Your task to perform on an android device: open sync settings in chrome Image 0: 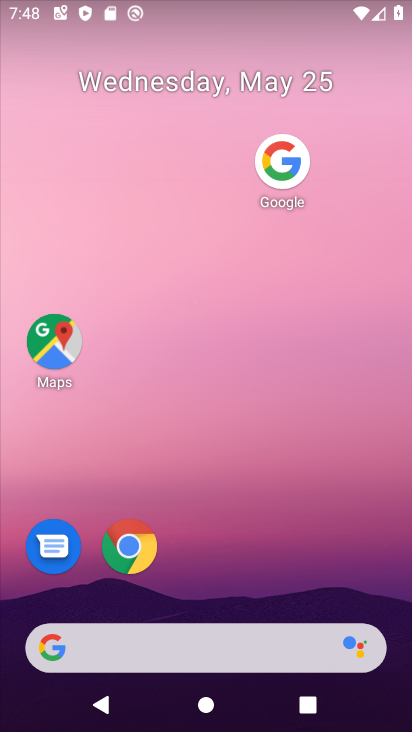
Step 0: click (136, 559)
Your task to perform on an android device: open sync settings in chrome Image 1: 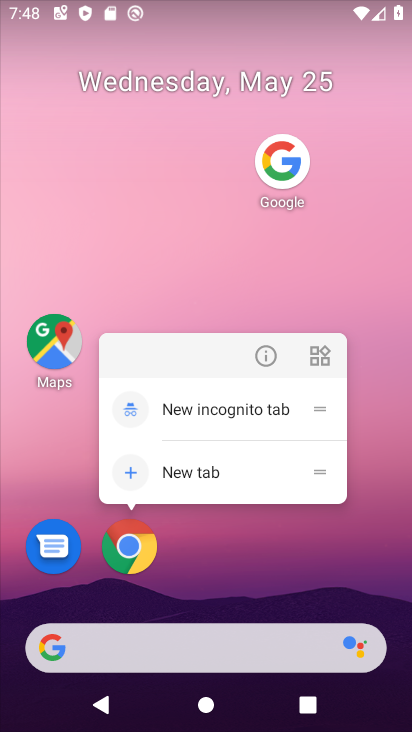
Step 1: click (128, 556)
Your task to perform on an android device: open sync settings in chrome Image 2: 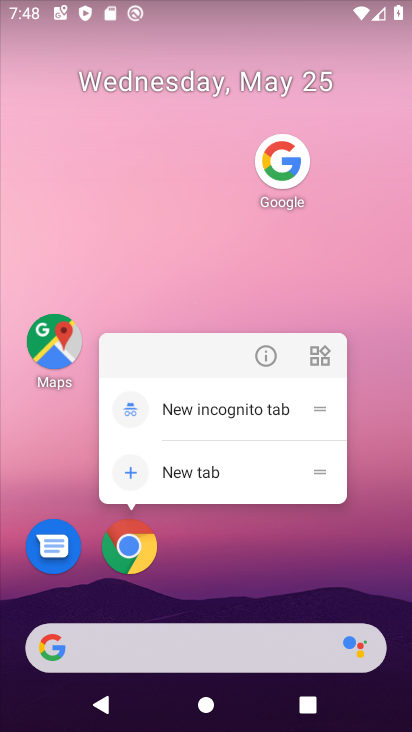
Step 2: click (141, 541)
Your task to perform on an android device: open sync settings in chrome Image 3: 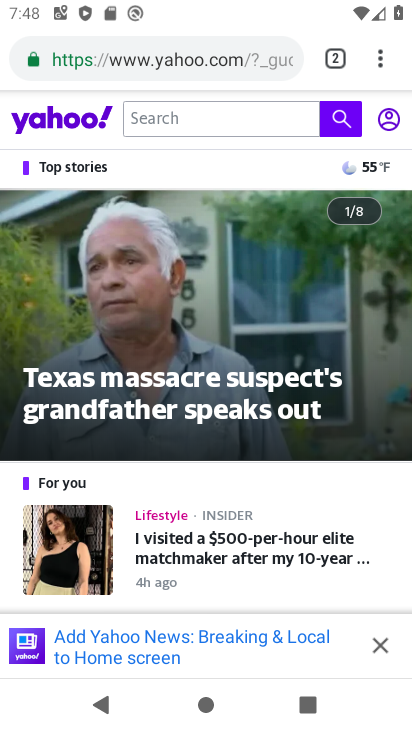
Step 3: drag from (375, 65) to (225, 570)
Your task to perform on an android device: open sync settings in chrome Image 4: 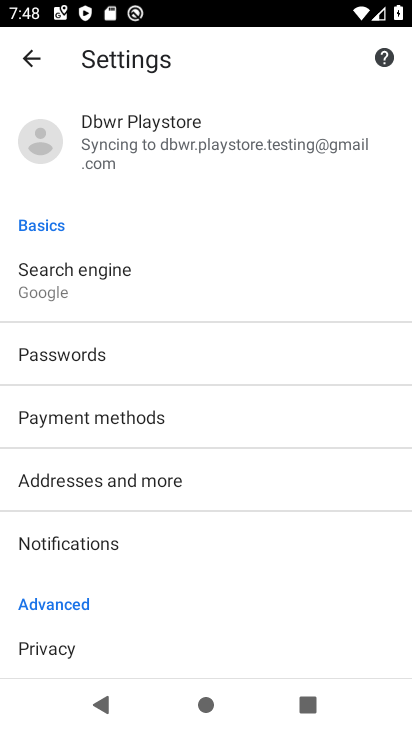
Step 4: click (228, 151)
Your task to perform on an android device: open sync settings in chrome Image 5: 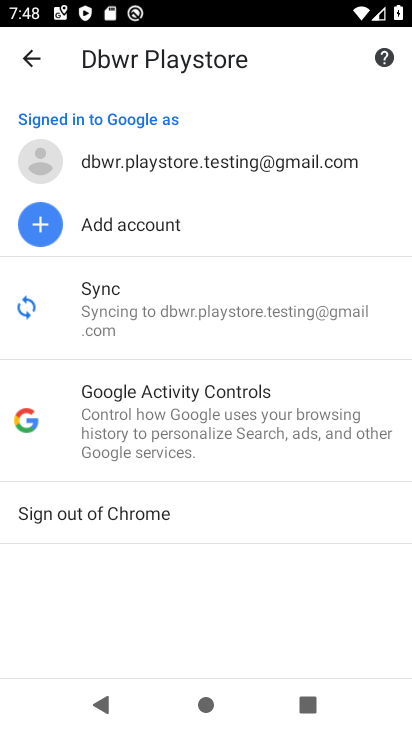
Step 5: click (181, 311)
Your task to perform on an android device: open sync settings in chrome Image 6: 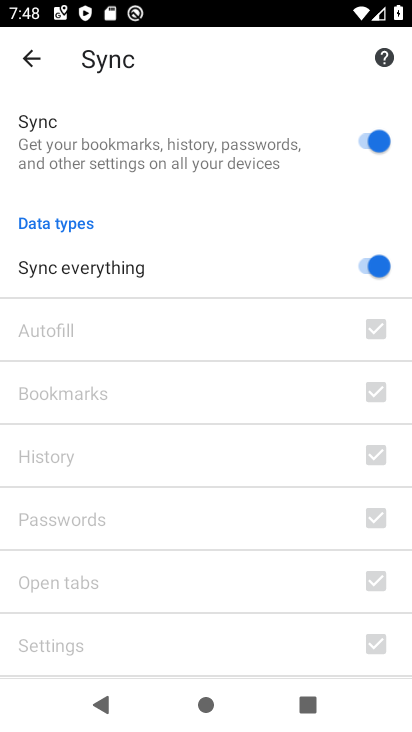
Step 6: task complete